Your task to perform on an android device: turn off picture-in-picture Image 0: 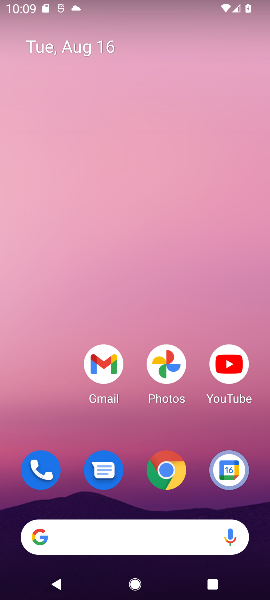
Step 0: click (171, 469)
Your task to perform on an android device: turn off picture-in-picture Image 1: 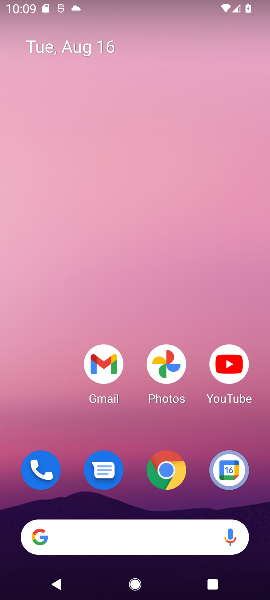
Step 1: click (171, 469)
Your task to perform on an android device: turn off picture-in-picture Image 2: 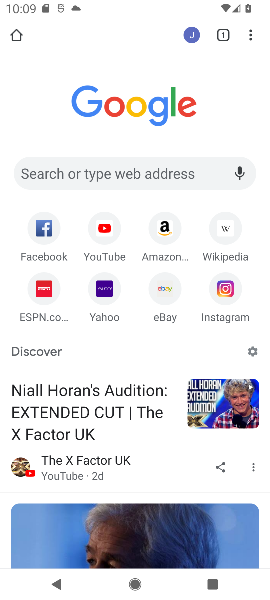
Step 2: press back button
Your task to perform on an android device: turn off picture-in-picture Image 3: 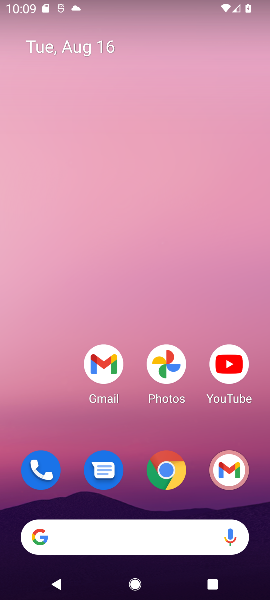
Step 3: click (175, 466)
Your task to perform on an android device: turn off picture-in-picture Image 4: 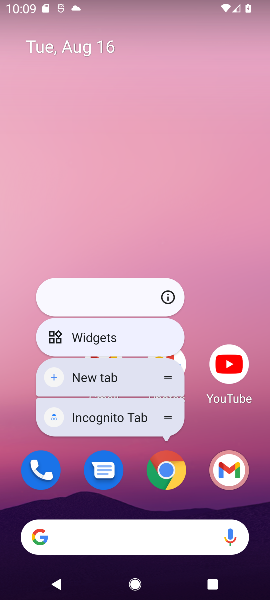
Step 4: click (167, 292)
Your task to perform on an android device: turn off picture-in-picture Image 5: 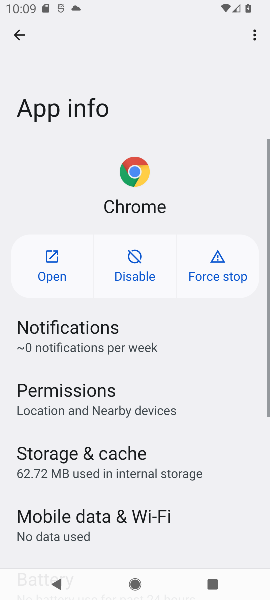
Step 5: drag from (117, 452) to (149, 88)
Your task to perform on an android device: turn off picture-in-picture Image 6: 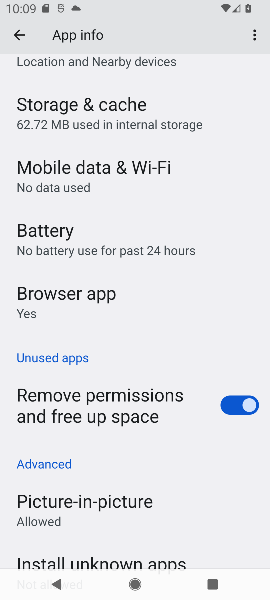
Step 6: click (79, 501)
Your task to perform on an android device: turn off picture-in-picture Image 7: 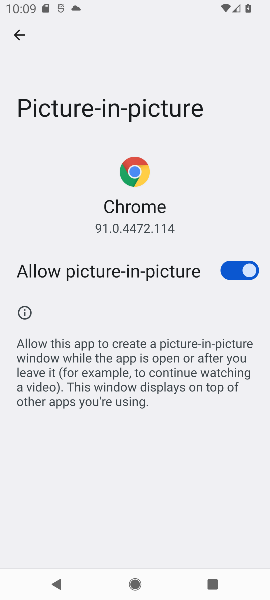
Step 7: click (236, 269)
Your task to perform on an android device: turn off picture-in-picture Image 8: 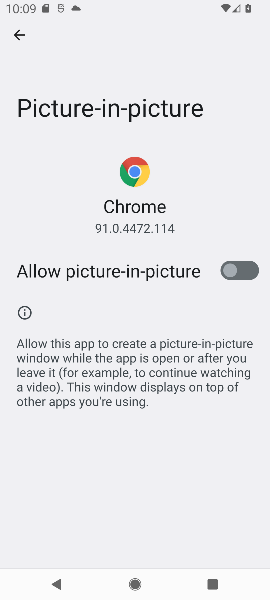
Step 8: task complete